Your task to perform on an android device: manage bookmarks in the chrome app Image 0: 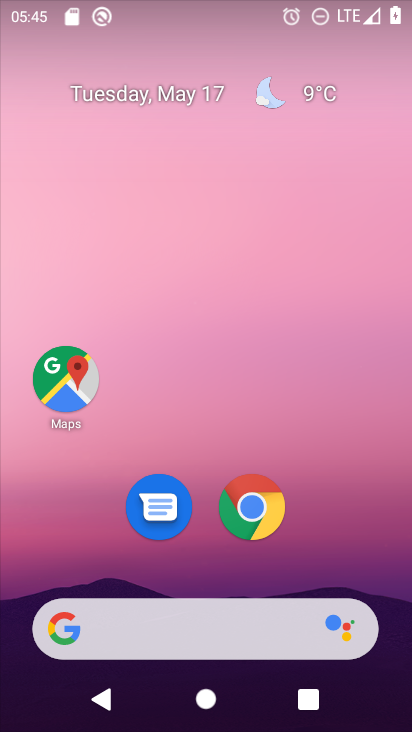
Step 0: click (264, 516)
Your task to perform on an android device: manage bookmarks in the chrome app Image 1: 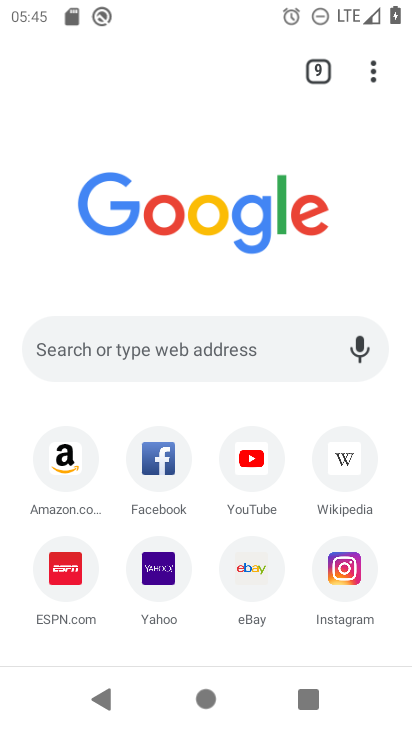
Step 1: click (360, 76)
Your task to perform on an android device: manage bookmarks in the chrome app Image 2: 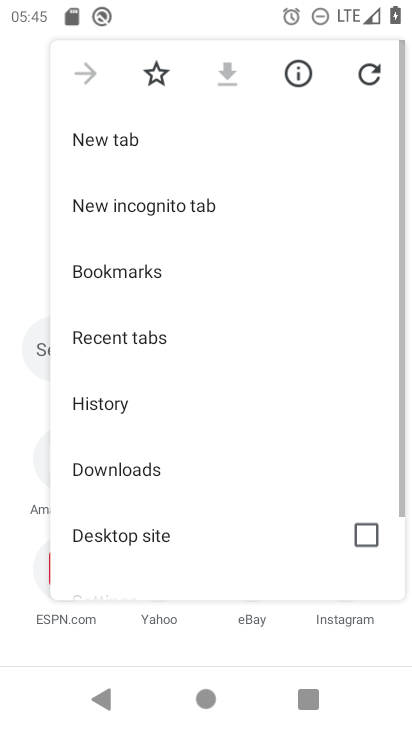
Step 2: click (156, 275)
Your task to perform on an android device: manage bookmarks in the chrome app Image 3: 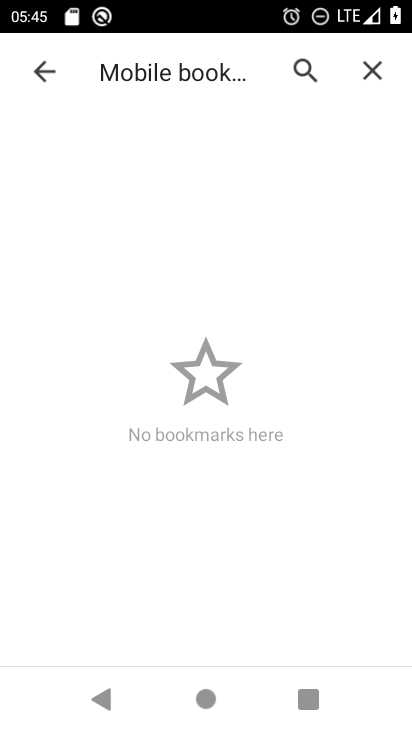
Step 3: task complete